Your task to perform on an android device: Open ESPN.com Image 0: 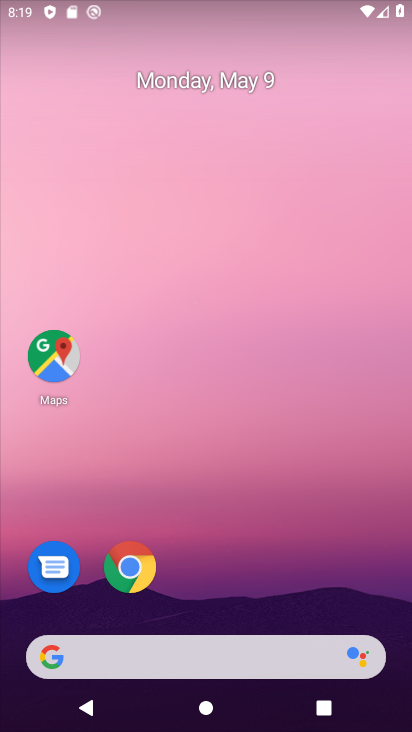
Step 0: click (147, 560)
Your task to perform on an android device: Open ESPN.com Image 1: 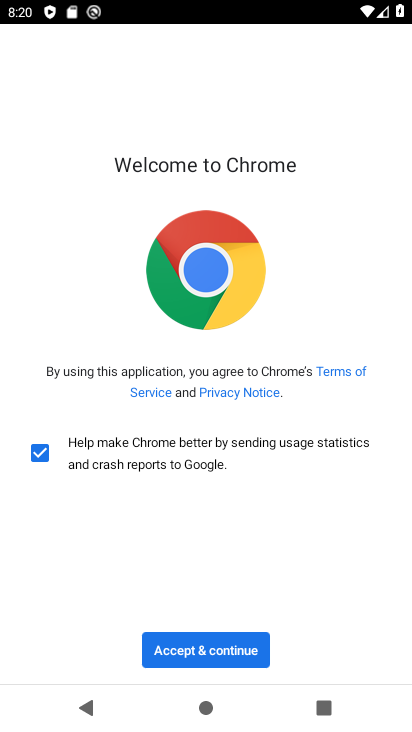
Step 1: click (203, 642)
Your task to perform on an android device: Open ESPN.com Image 2: 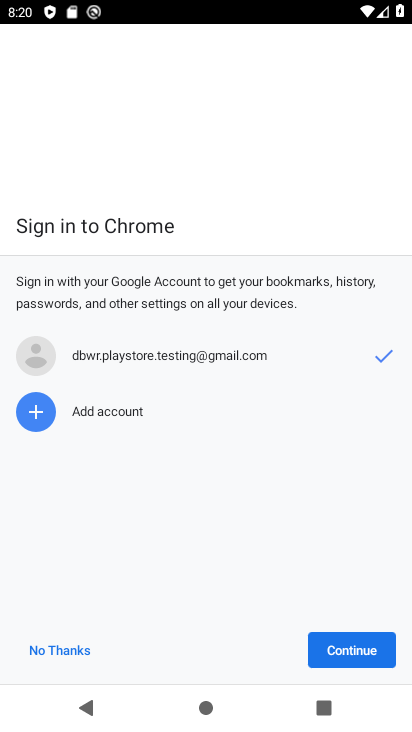
Step 2: click (332, 638)
Your task to perform on an android device: Open ESPN.com Image 3: 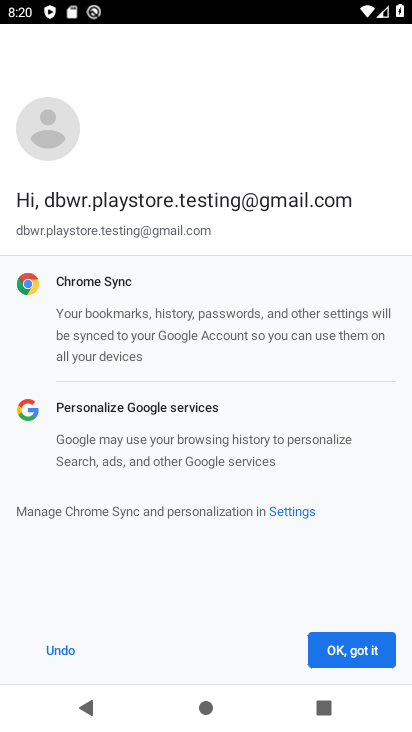
Step 3: click (333, 643)
Your task to perform on an android device: Open ESPN.com Image 4: 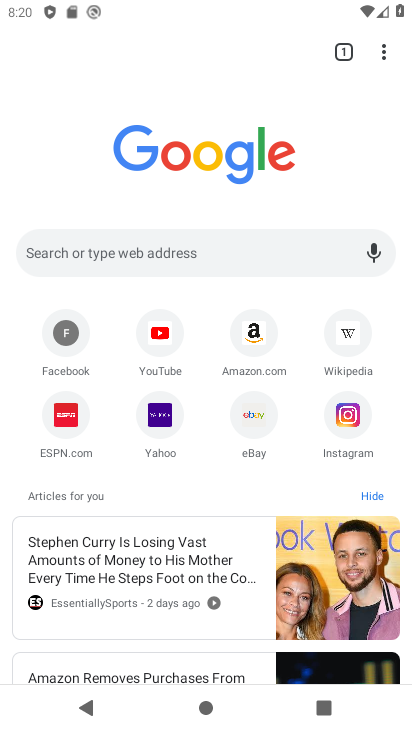
Step 4: click (72, 406)
Your task to perform on an android device: Open ESPN.com Image 5: 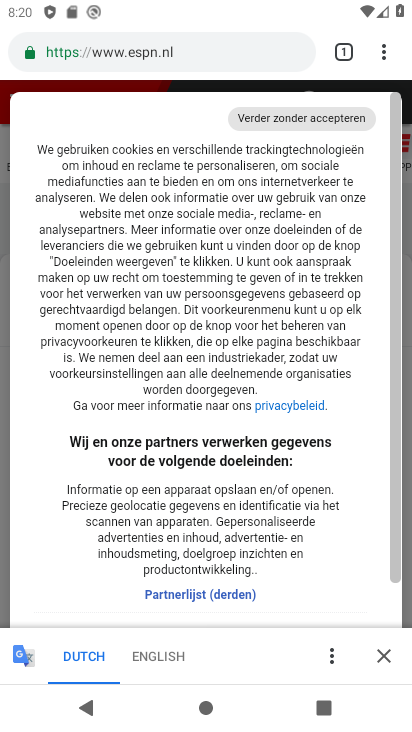
Step 5: task complete